Your task to perform on an android device: Show me productivity apps on the Play Store Image 0: 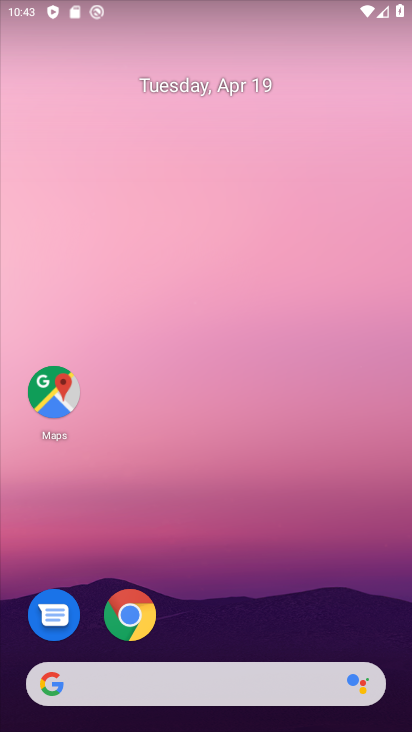
Step 0: drag from (219, 614) to (227, 111)
Your task to perform on an android device: Show me productivity apps on the Play Store Image 1: 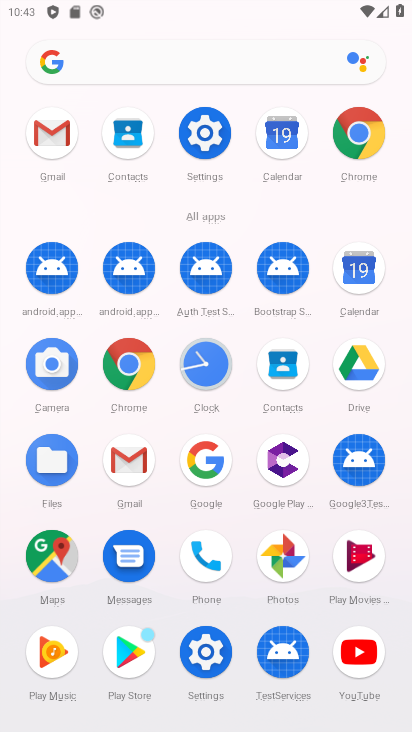
Step 1: click (130, 644)
Your task to perform on an android device: Show me productivity apps on the Play Store Image 2: 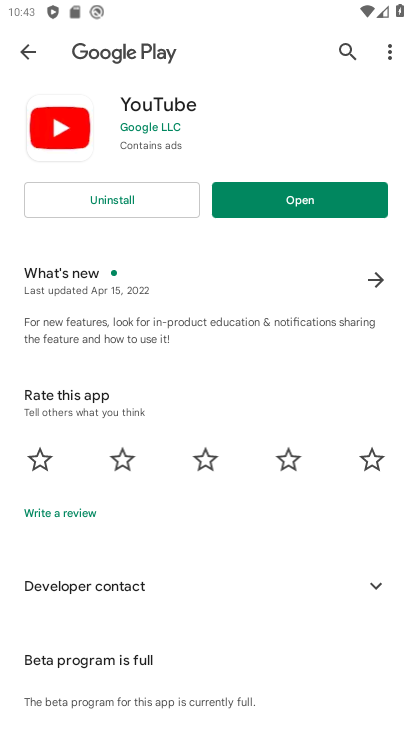
Step 2: press back button
Your task to perform on an android device: Show me productivity apps on the Play Store Image 3: 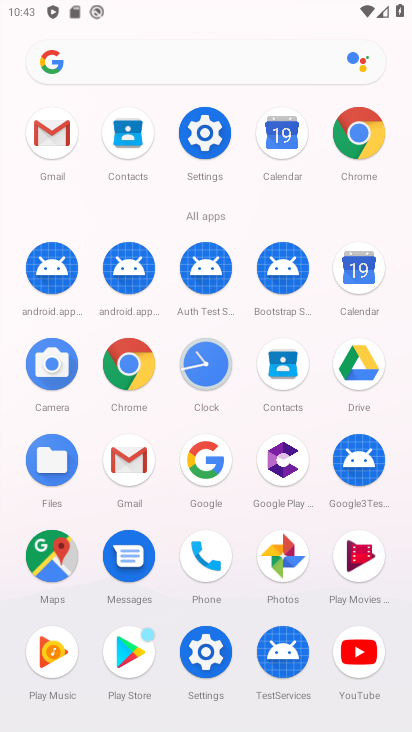
Step 3: click (123, 654)
Your task to perform on an android device: Show me productivity apps on the Play Store Image 4: 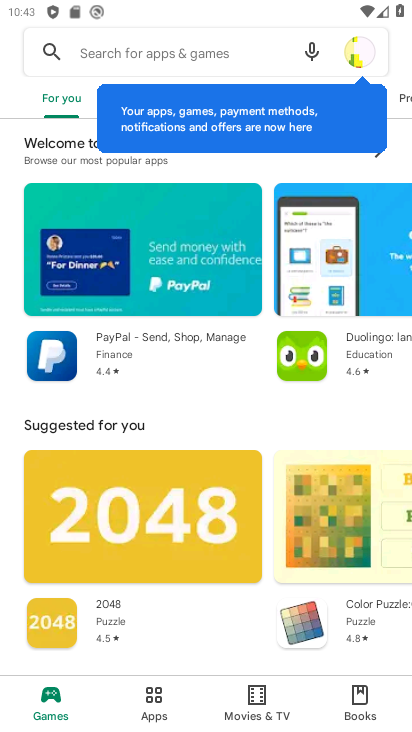
Step 4: drag from (218, 613) to (232, 337)
Your task to perform on an android device: Show me productivity apps on the Play Store Image 5: 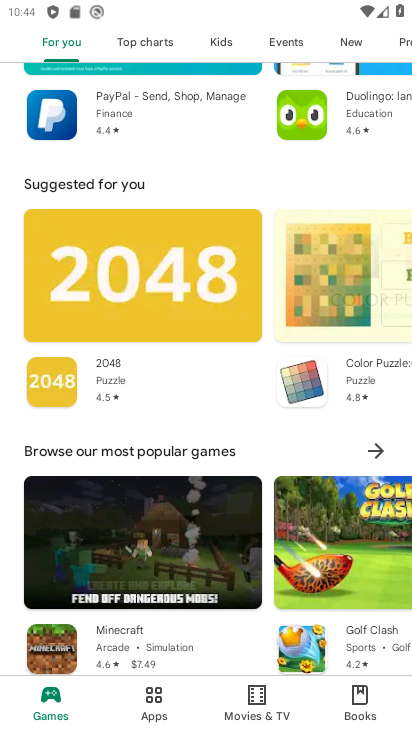
Step 5: drag from (170, 382) to (187, 107)
Your task to perform on an android device: Show me productivity apps on the Play Store Image 6: 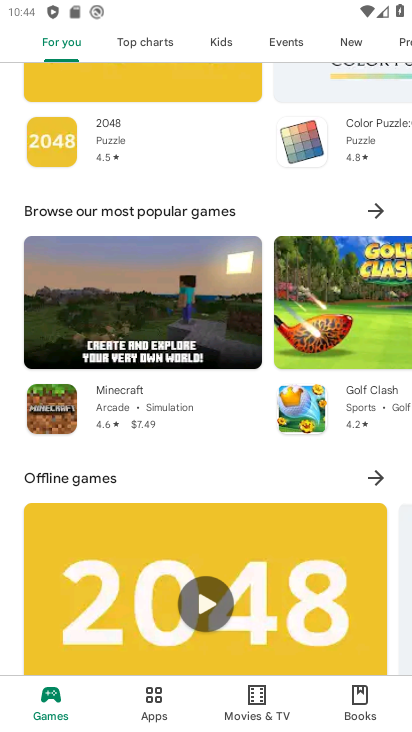
Step 6: click (159, 699)
Your task to perform on an android device: Show me productivity apps on the Play Store Image 7: 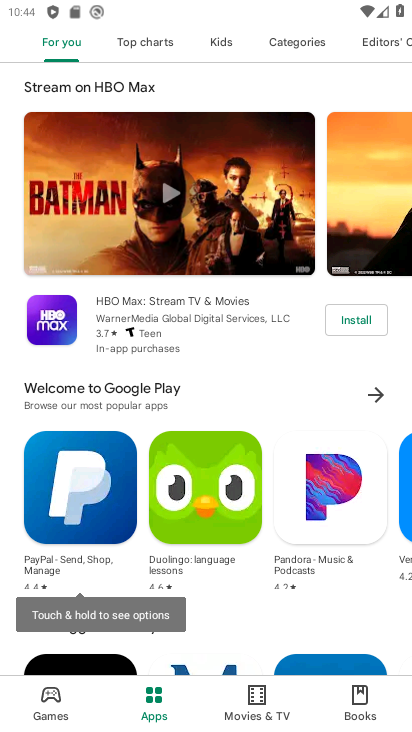
Step 7: task complete